Your task to perform on an android device: Open the web browser Image 0: 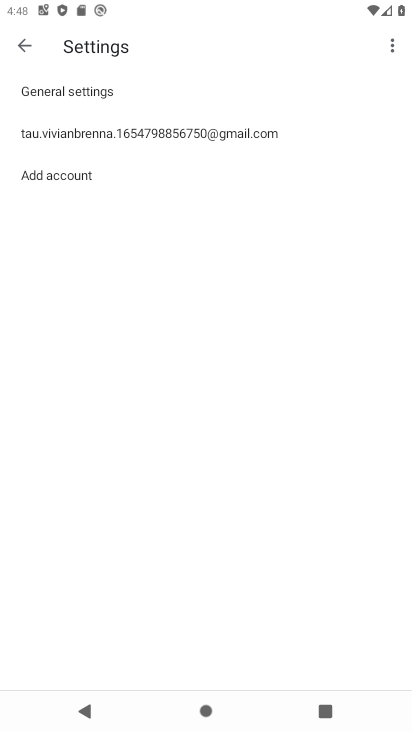
Step 0: press home button
Your task to perform on an android device: Open the web browser Image 1: 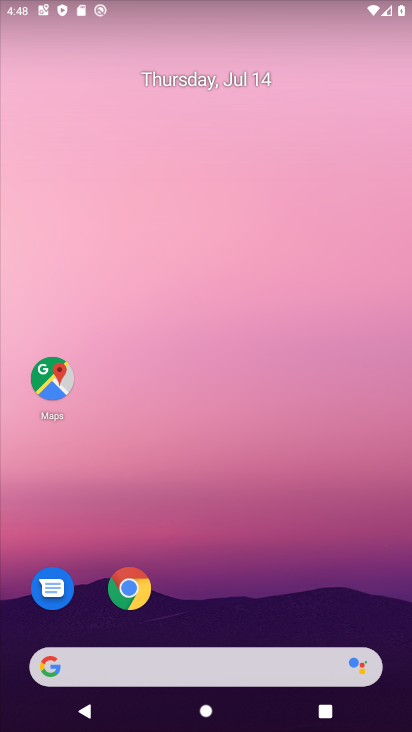
Step 1: click (133, 582)
Your task to perform on an android device: Open the web browser Image 2: 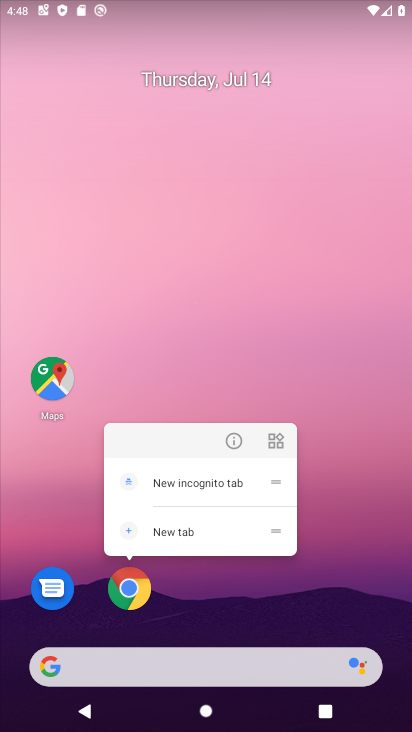
Step 2: click (134, 592)
Your task to perform on an android device: Open the web browser Image 3: 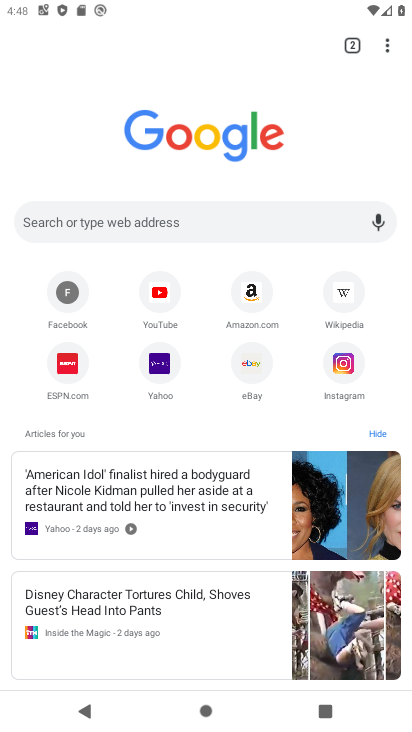
Step 3: task complete